Your task to perform on an android device: View the shopping cart on amazon.com. Search for razer blade on amazon.com, select the first entry, add it to the cart, then select checkout. Image 0: 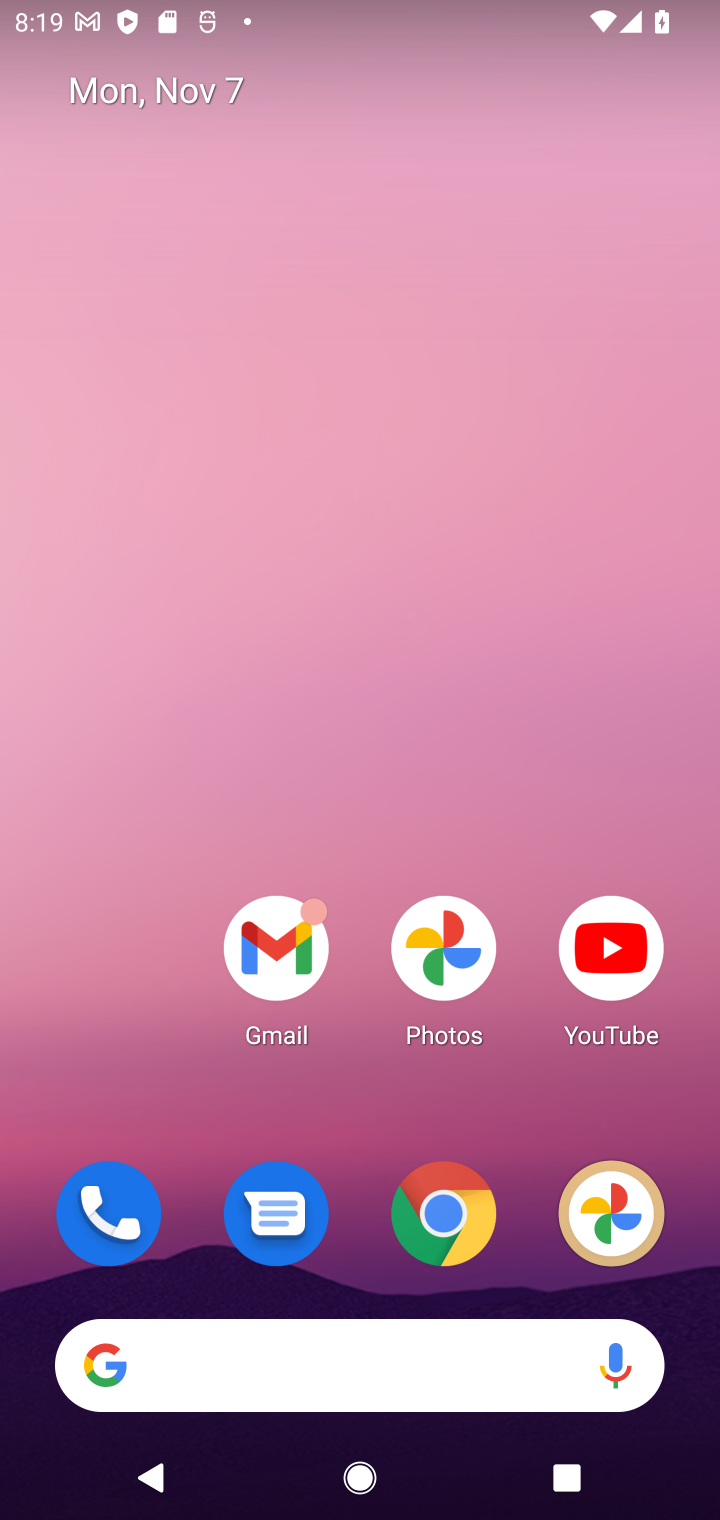
Step 0: click (452, 1241)
Your task to perform on an android device: View the shopping cart on amazon.com. Search for razer blade on amazon.com, select the first entry, add it to the cart, then select checkout. Image 1: 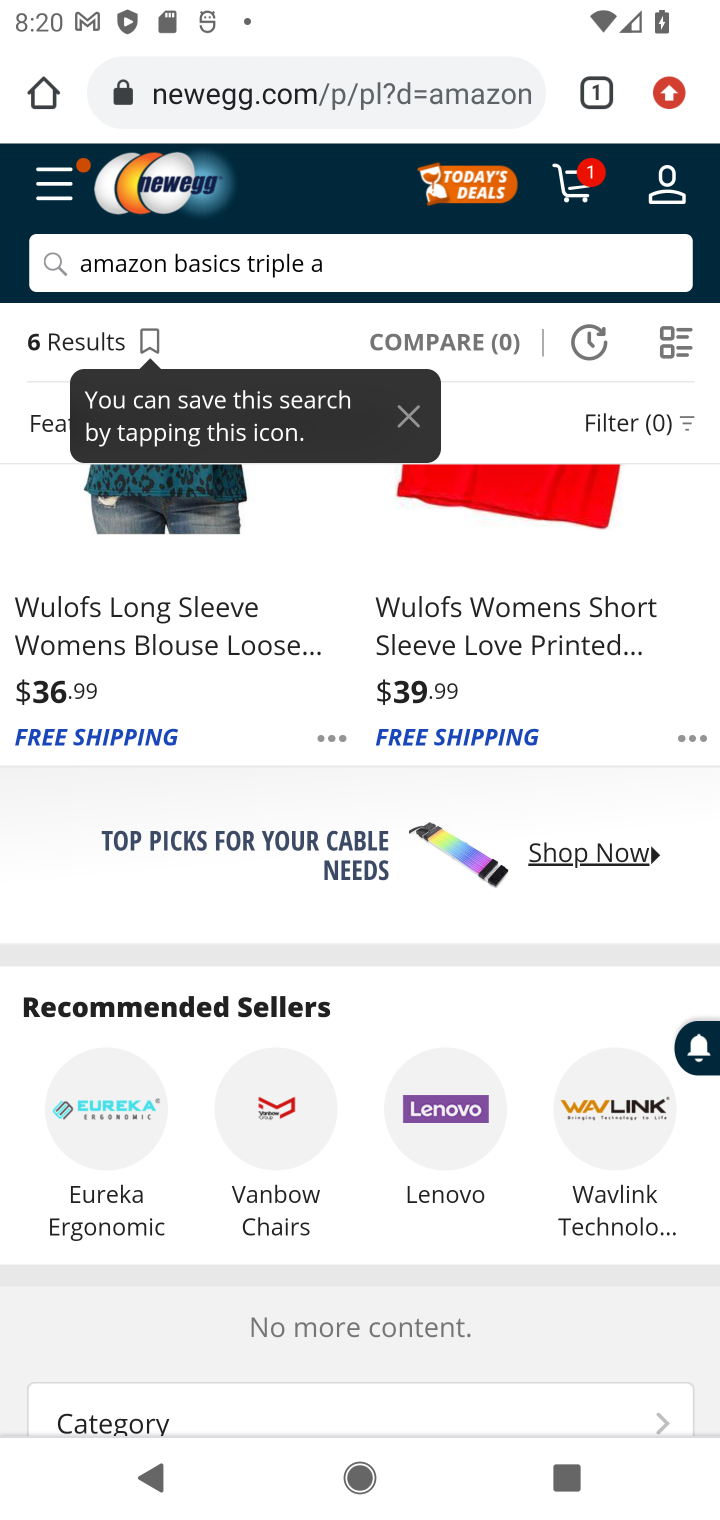
Step 1: click (284, 91)
Your task to perform on an android device: View the shopping cart on amazon.com. Search for razer blade on amazon.com, select the first entry, add it to the cart, then select checkout. Image 2: 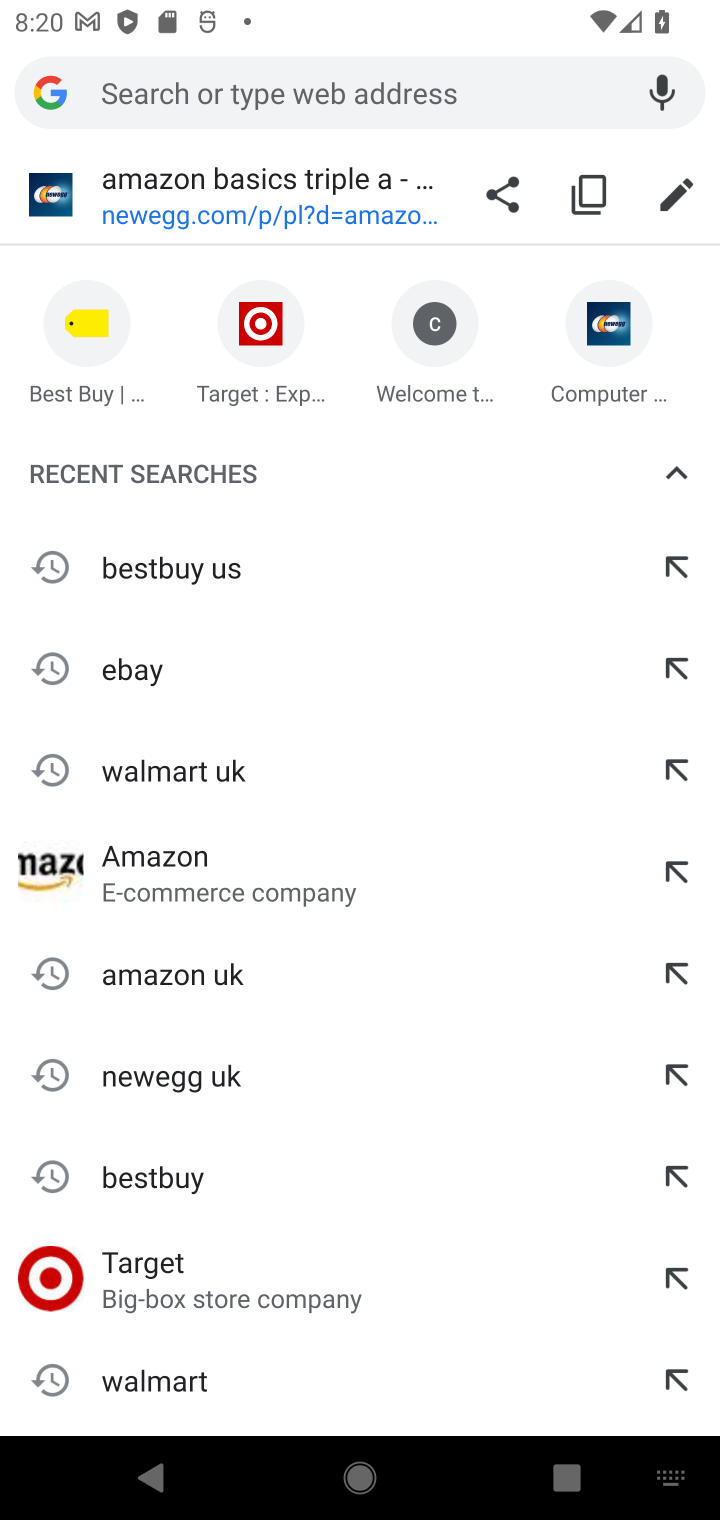
Step 2: type "amazon.com"
Your task to perform on an android device: View the shopping cart on amazon.com. Search for razer blade on amazon.com, select the first entry, add it to the cart, then select checkout. Image 3: 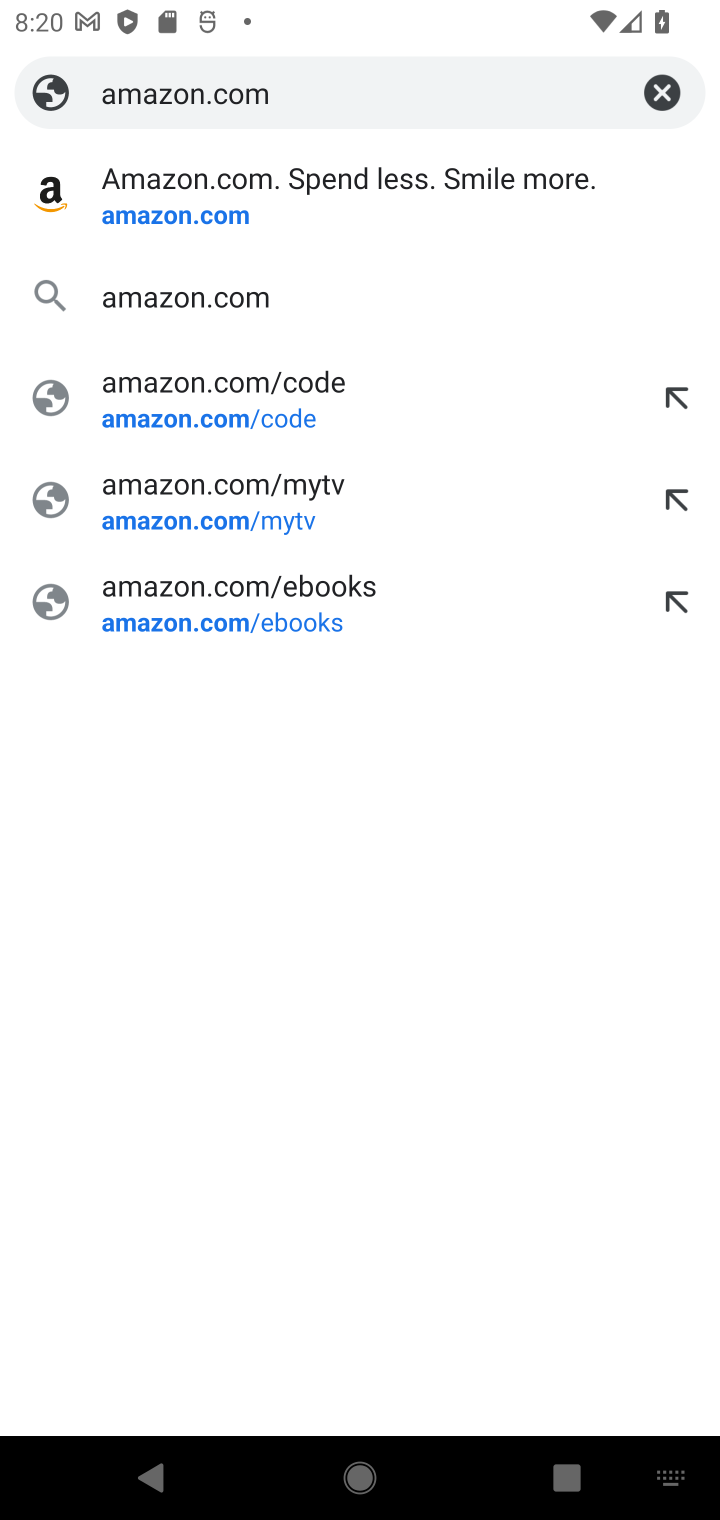
Step 3: click (229, 199)
Your task to perform on an android device: View the shopping cart on amazon.com. Search for razer blade on amazon.com, select the first entry, add it to the cart, then select checkout. Image 4: 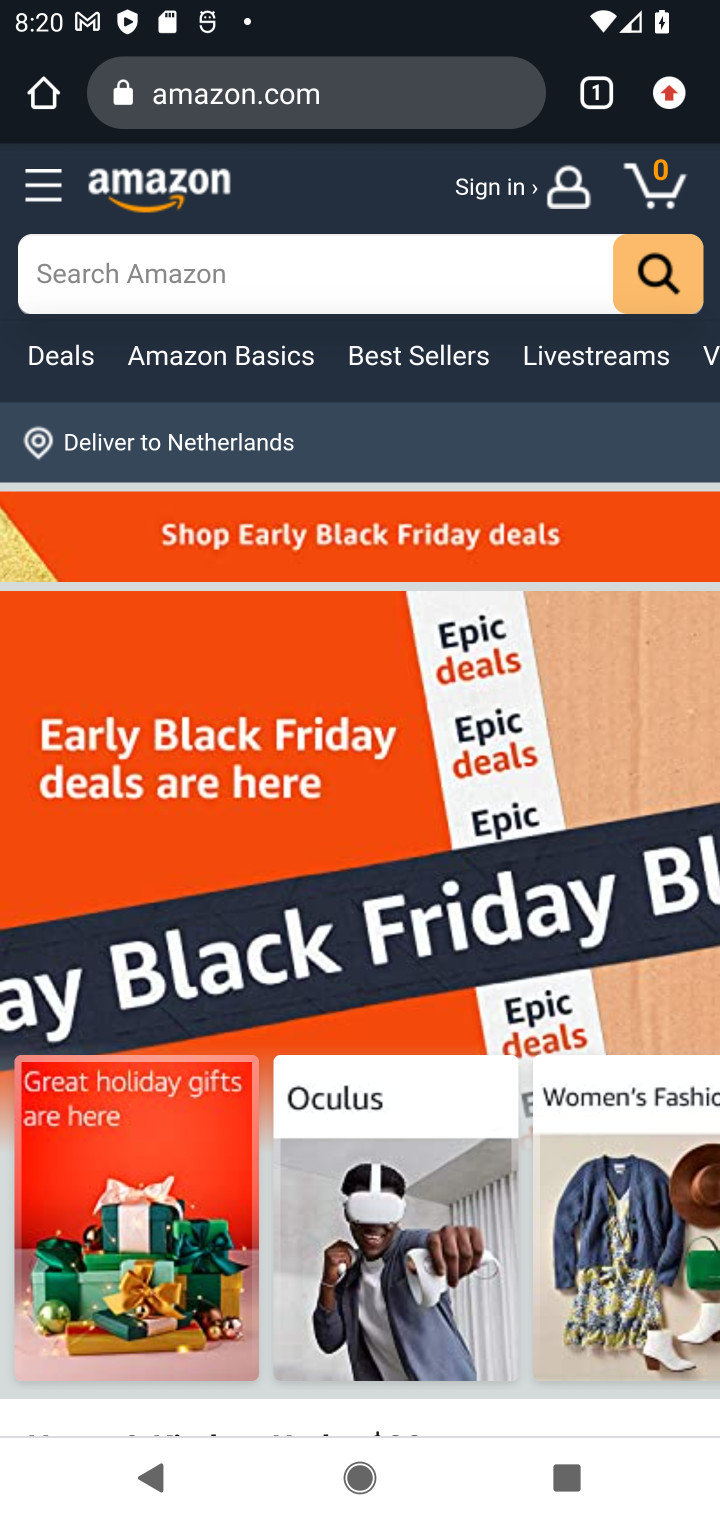
Step 4: click (673, 187)
Your task to perform on an android device: View the shopping cart on amazon.com. Search for razer blade on amazon.com, select the first entry, add it to the cart, then select checkout. Image 5: 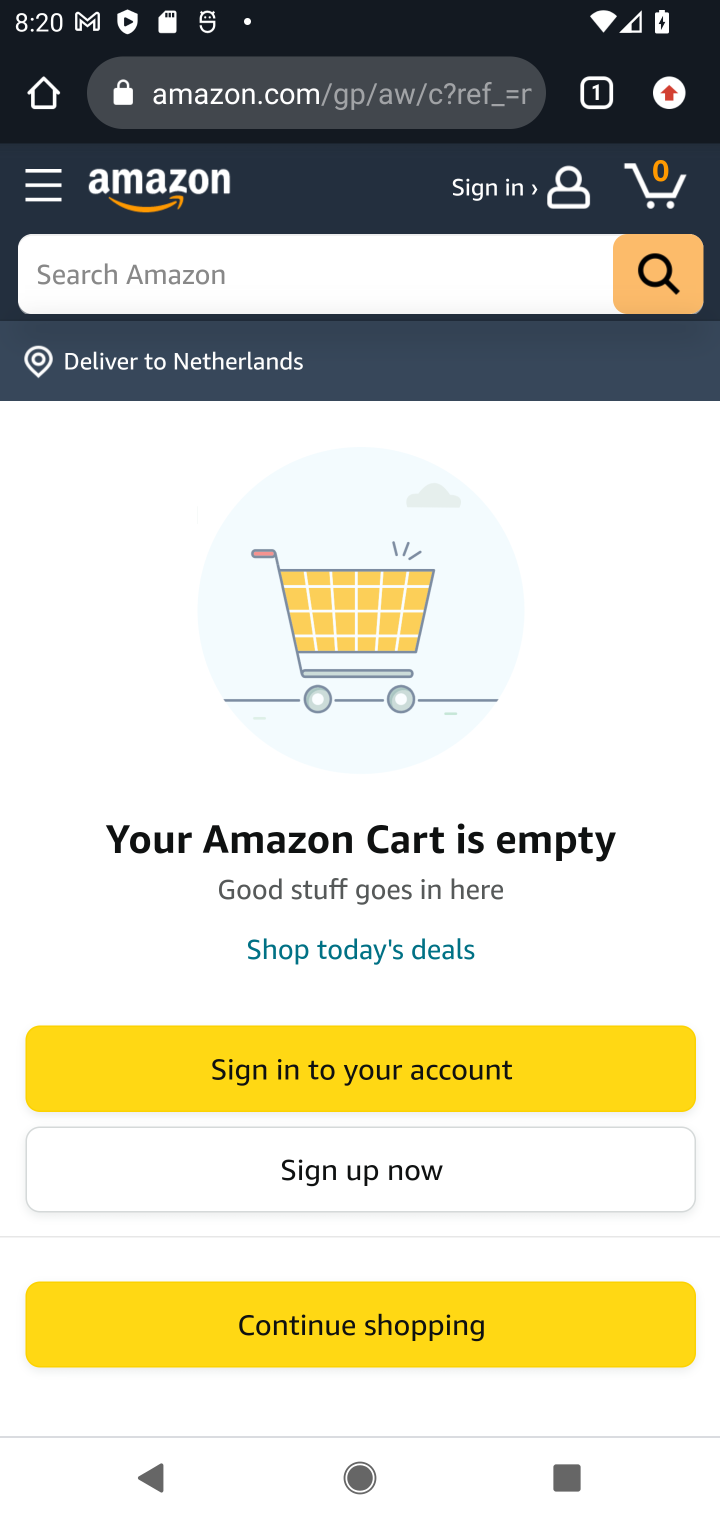
Step 5: click (207, 272)
Your task to perform on an android device: View the shopping cart on amazon.com. Search for razer blade on amazon.com, select the first entry, add it to the cart, then select checkout. Image 6: 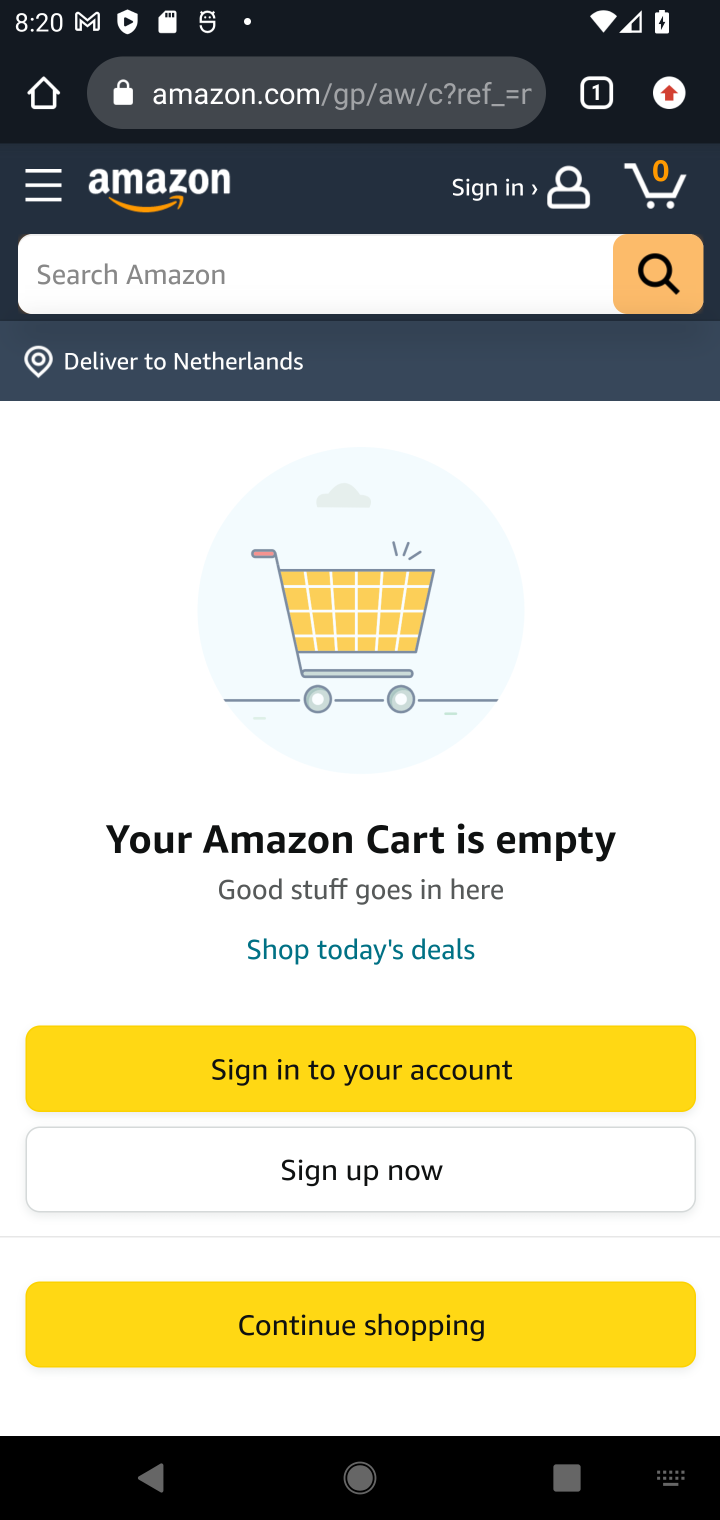
Step 6: type " razer blade"
Your task to perform on an android device: View the shopping cart on amazon.com. Search for razer blade on amazon.com, select the first entry, add it to the cart, then select checkout. Image 7: 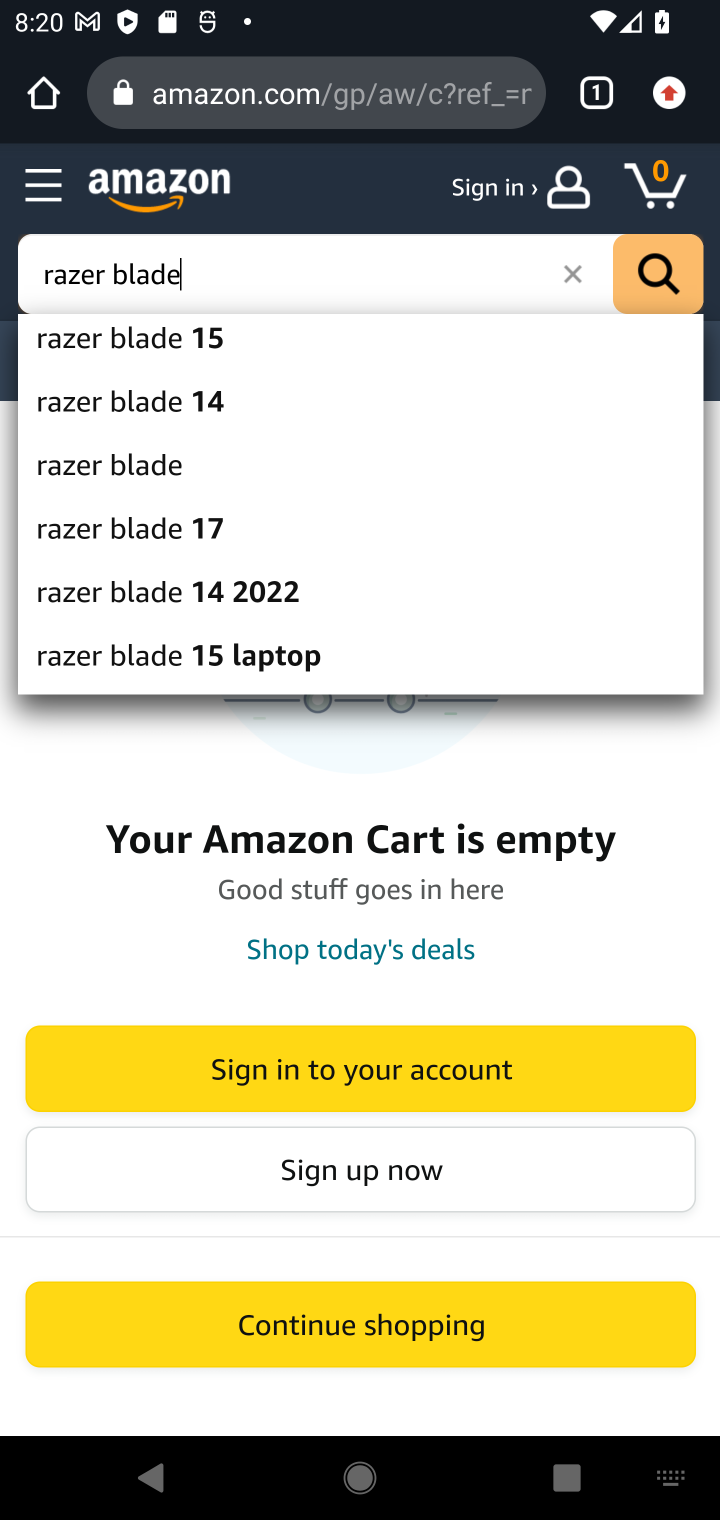
Step 7: click (102, 475)
Your task to perform on an android device: View the shopping cart on amazon.com. Search for razer blade on amazon.com, select the first entry, add it to the cart, then select checkout. Image 8: 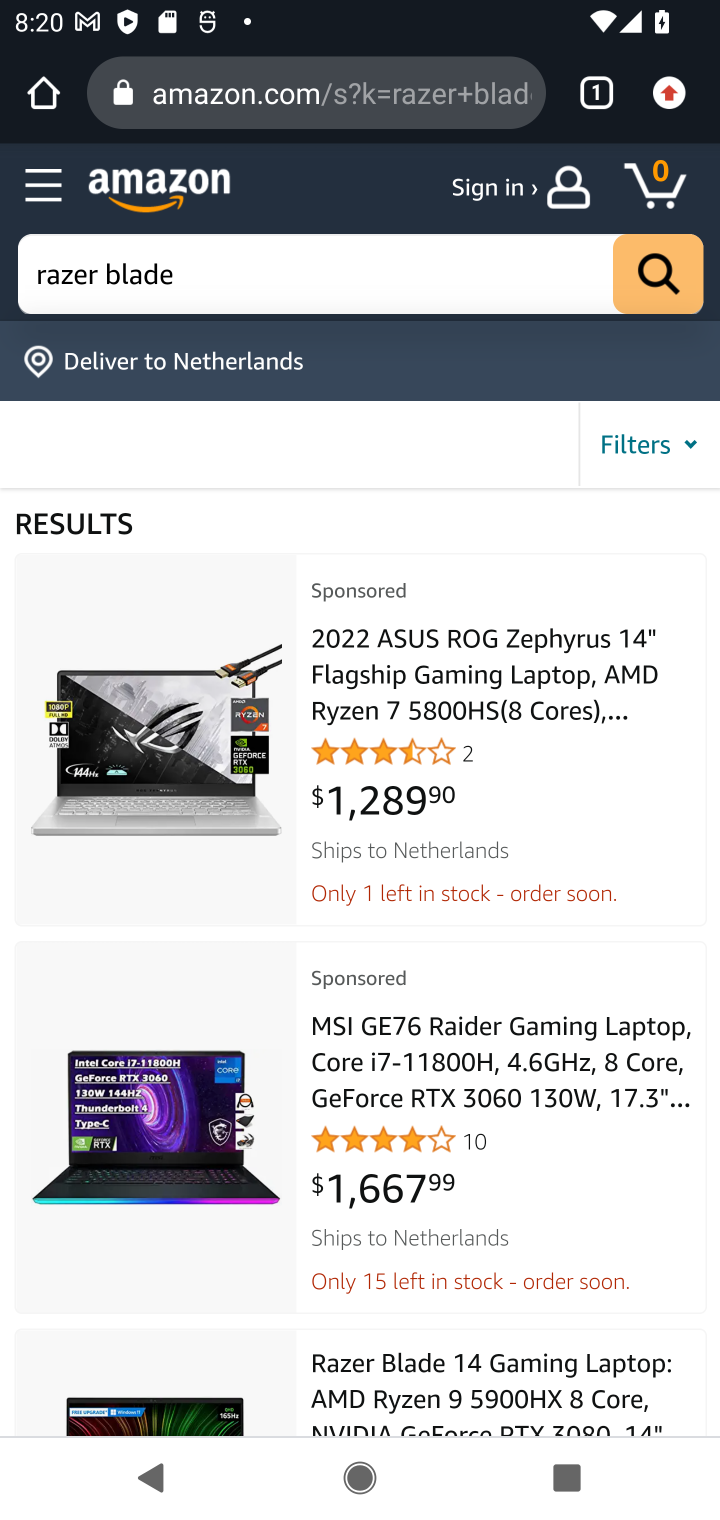
Step 8: task complete